Your task to perform on an android device: set an alarm Image 0: 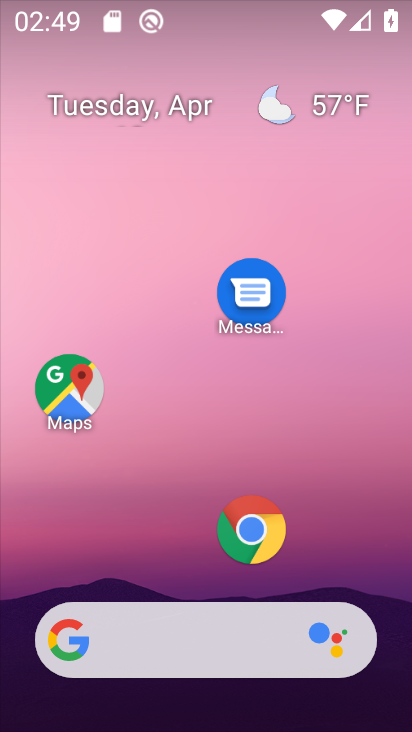
Step 0: drag from (149, 508) to (152, 137)
Your task to perform on an android device: set an alarm Image 1: 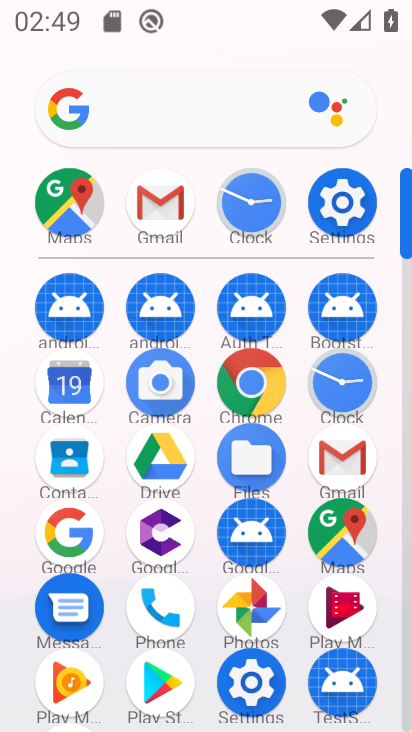
Step 1: click (338, 391)
Your task to perform on an android device: set an alarm Image 2: 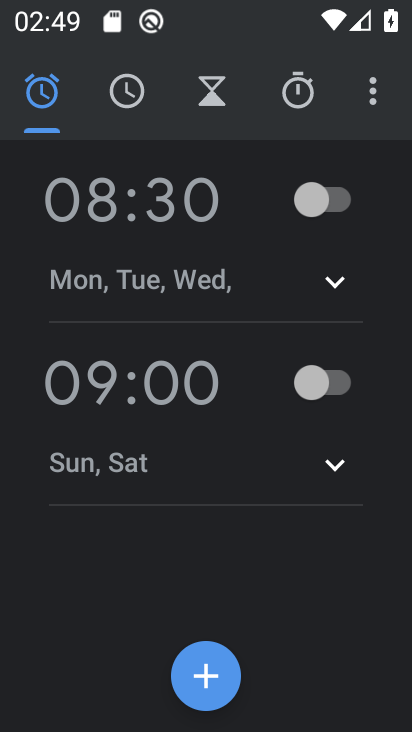
Step 2: click (319, 203)
Your task to perform on an android device: set an alarm Image 3: 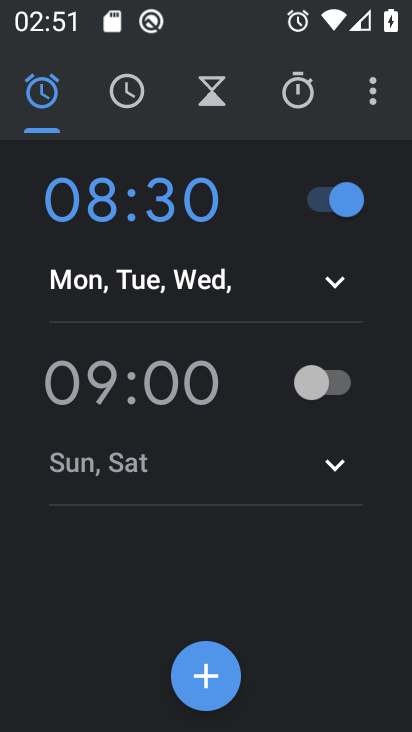
Step 3: task complete